Your task to perform on an android device: turn off notifications in google photos Image 0: 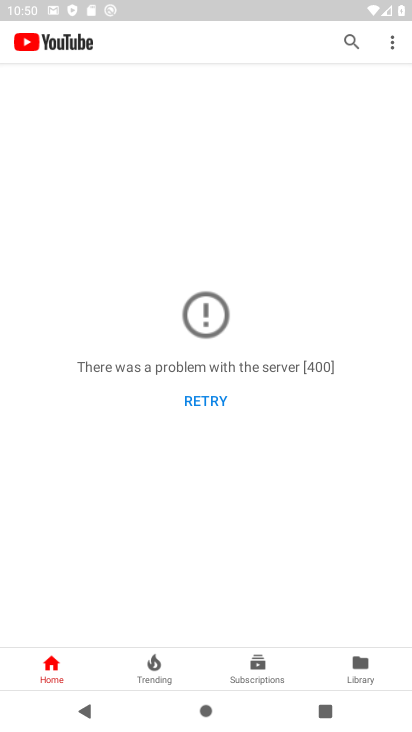
Step 0: press home button
Your task to perform on an android device: turn off notifications in google photos Image 1: 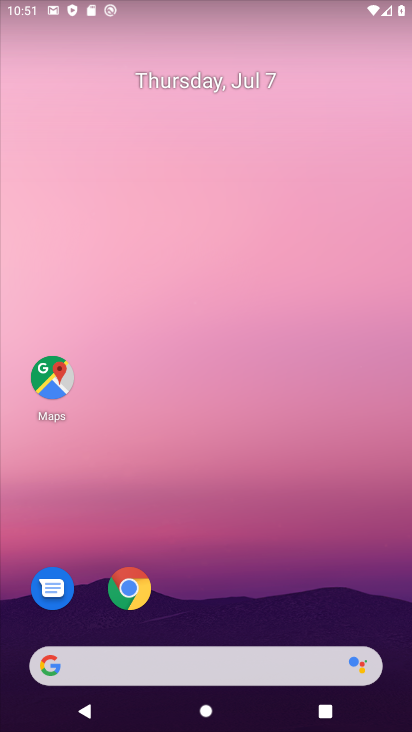
Step 1: drag from (208, 650) to (209, 75)
Your task to perform on an android device: turn off notifications in google photos Image 2: 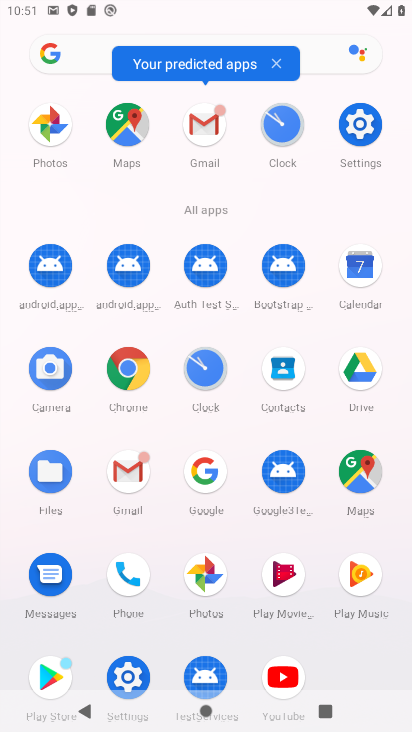
Step 2: click (130, 664)
Your task to perform on an android device: turn off notifications in google photos Image 3: 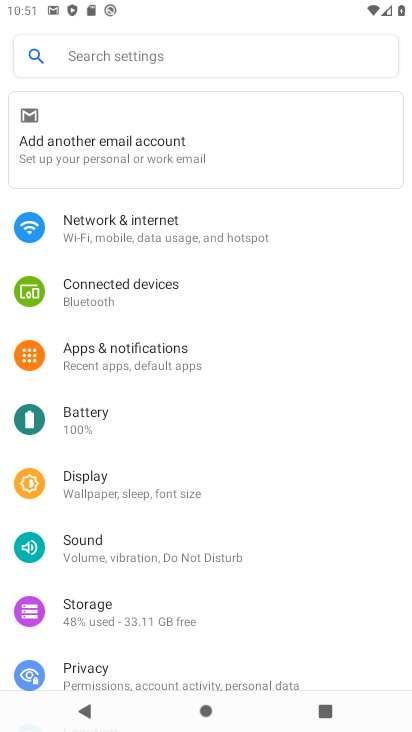
Step 3: click (135, 384)
Your task to perform on an android device: turn off notifications in google photos Image 4: 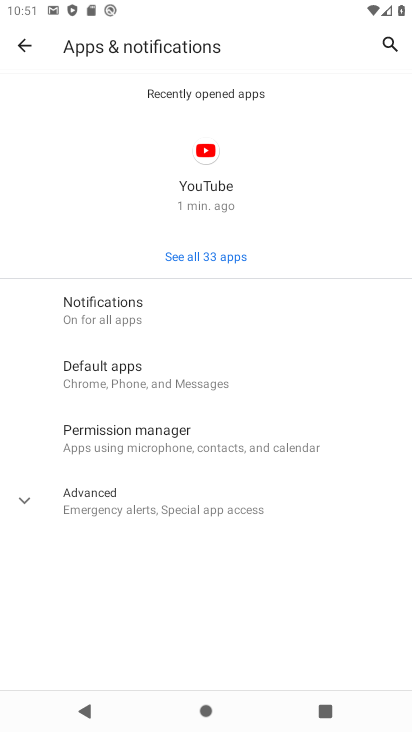
Step 4: click (54, 503)
Your task to perform on an android device: turn off notifications in google photos Image 5: 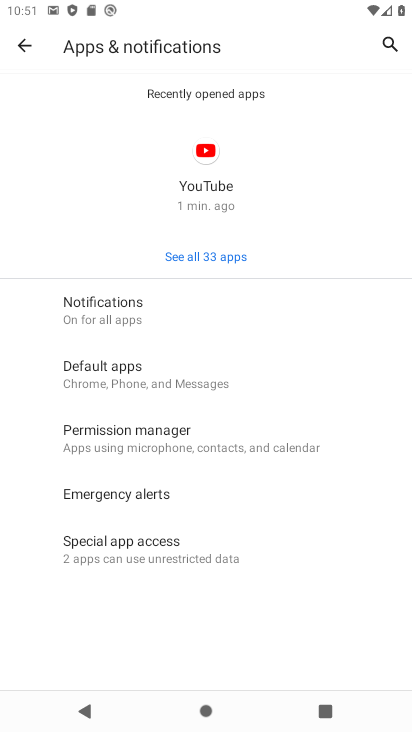
Step 5: click (73, 320)
Your task to perform on an android device: turn off notifications in google photos Image 6: 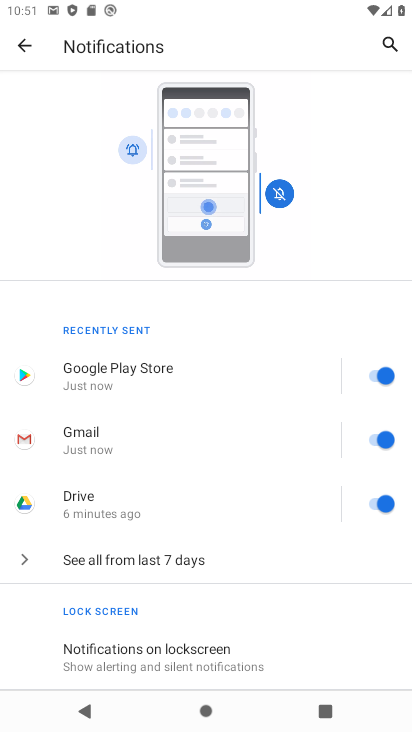
Step 6: drag from (256, 599) to (241, 342)
Your task to perform on an android device: turn off notifications in google photos Image 7: 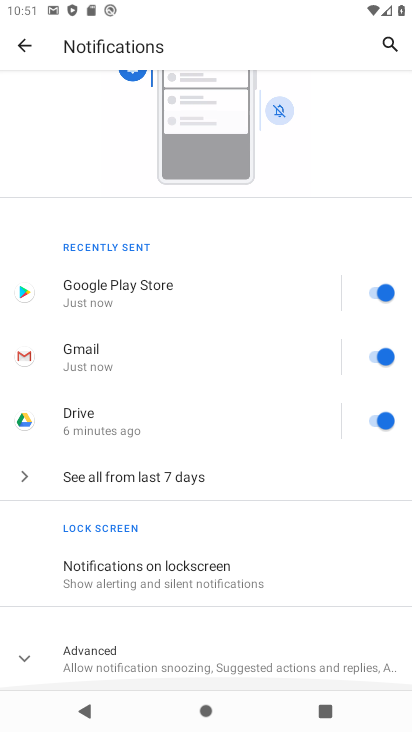
Step 7: click (165, 488)
Your task to perform on an android device: turn off notifications in google photos Image 8: 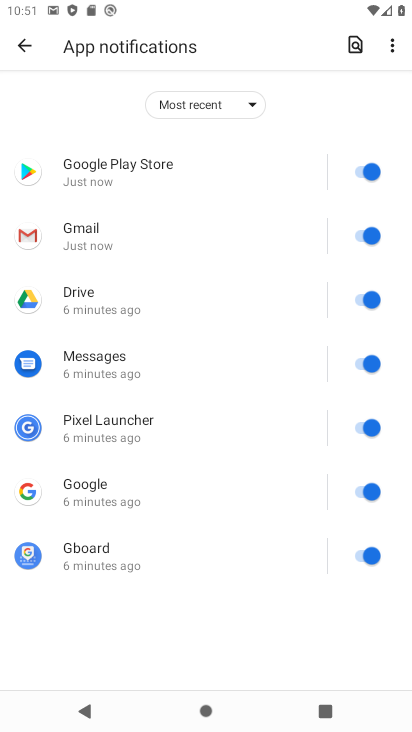
Step 8: click (195, 110)
Your task to perform on an android device: turn off notifications in google photos Image 9: 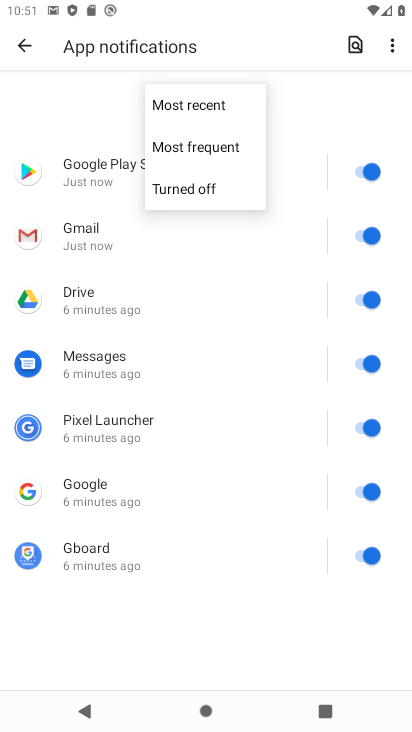
Step 9: click (206, 174)
Your task to perform on an android device: turn off notifications in google photos Image 10: 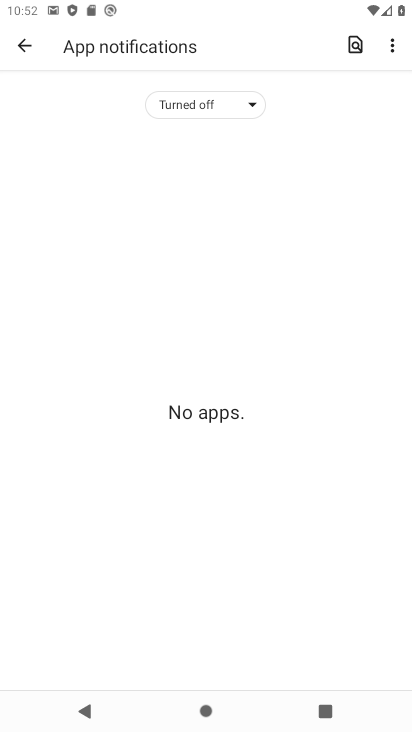
Step 10: task complete